Your task to perform on an android device: Open the stopwatch Image 0: 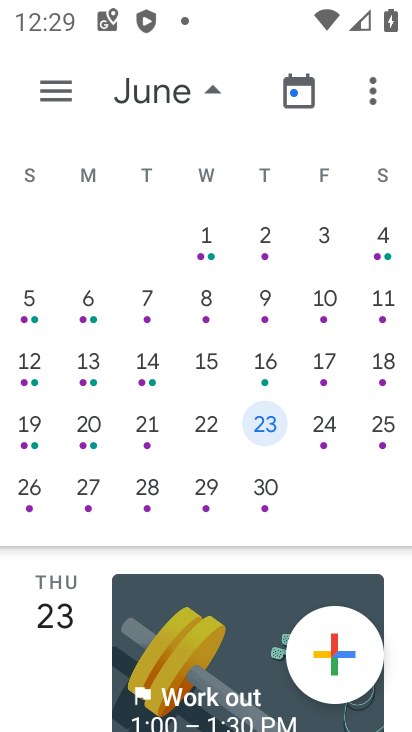
Step 0: press home button
Your task to perform on an android device: Open the stopwatch Image 1: 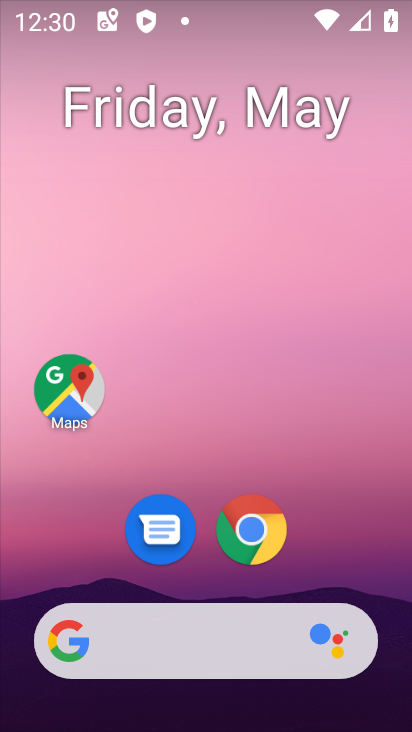
Step 1: drag from (369, 526) to (191, 33)
Your task to perform on an android device: Open the stopwatch Image 2: 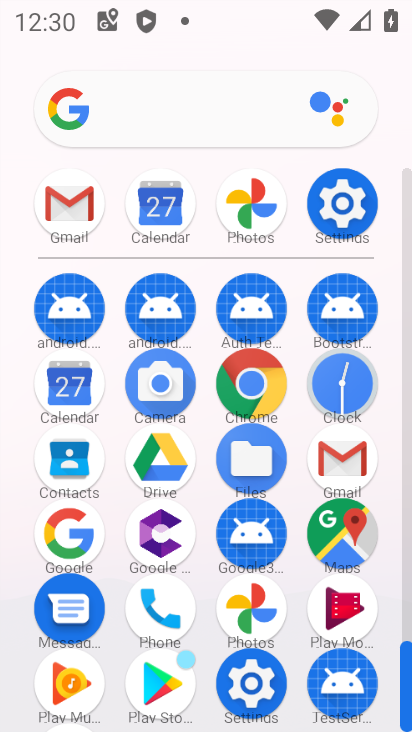
Step 2: click (326, 381)
Your task to perform on an android device: Open the stopwatch Image 3: 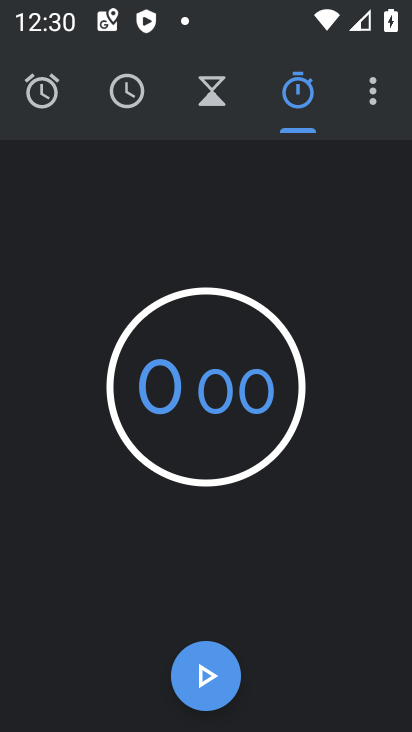
Step 3: task complete